Your task to perform on an android device: Go to Wikipedia Image 0: 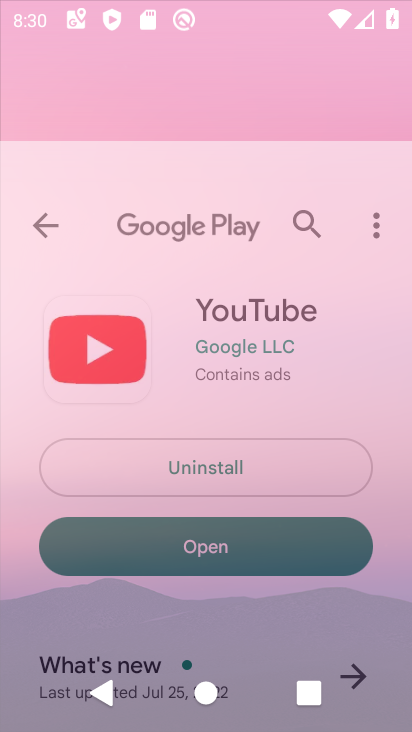
Step 0: click (312, 50)
Your task to perform on an android device: Go to Wikipedia Image 1: 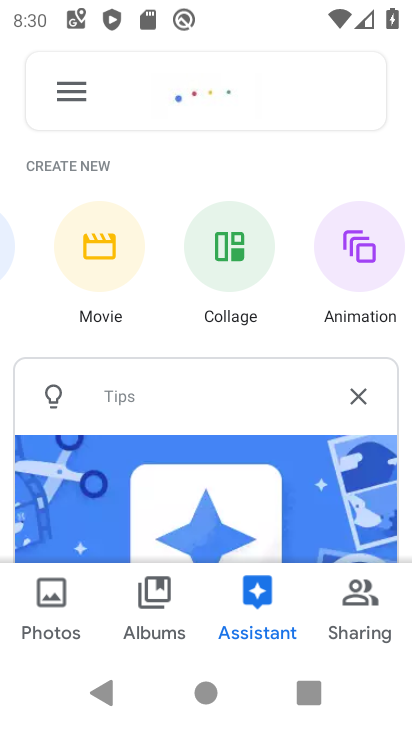
Step 1: press home button
Your task to perform on an android device: Go to Wikipedia Image 2: 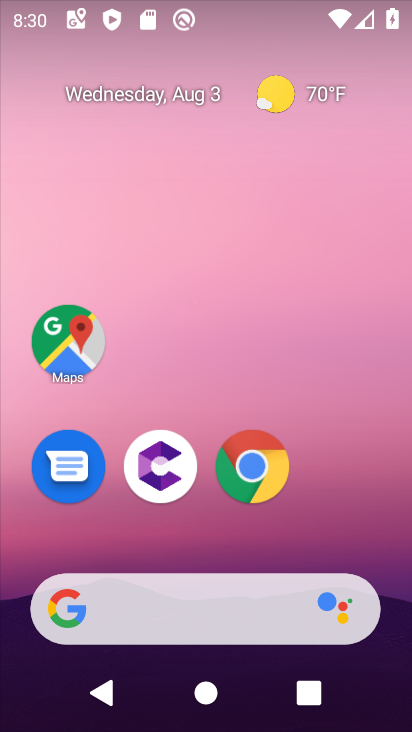
Step 2: drag from (367, 511) to (260, 128)
Your task to perform on an android device: Go to Wikipedia Image 3: 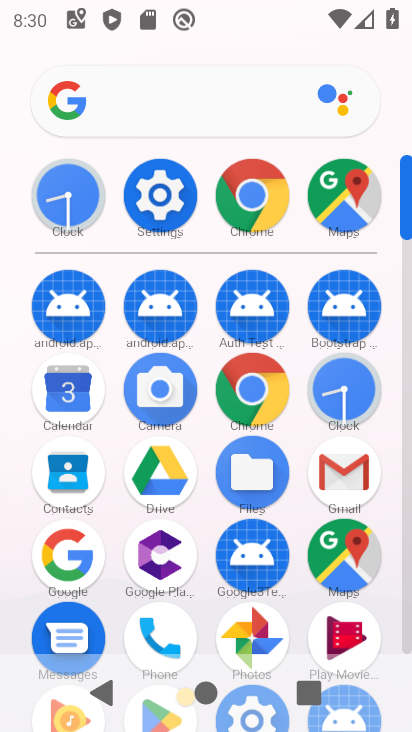
Step 3: click (249, 411)
Your task to perform on an android device: Go to Wikipedia Image 4: 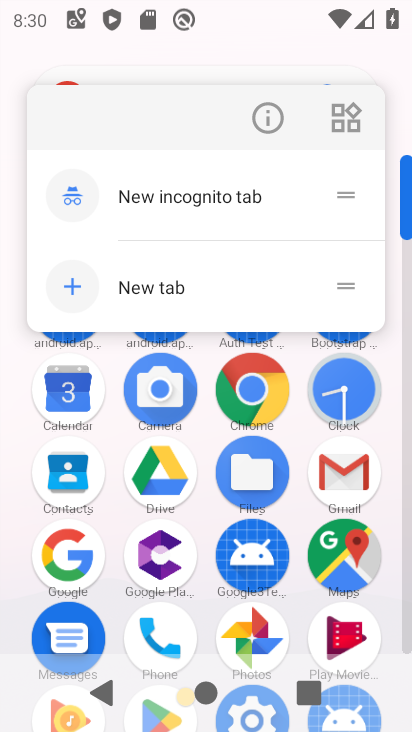
Step 4: click (249, 396)
Your task to perform on an android device: Go to Wikipedia Image 5: 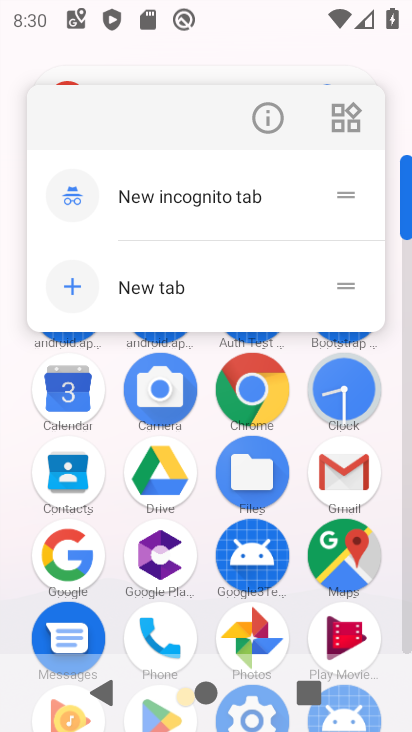
Step 5: click (259, 381)
Your task to perform on an android device: Go to Wikipedia Image 6: 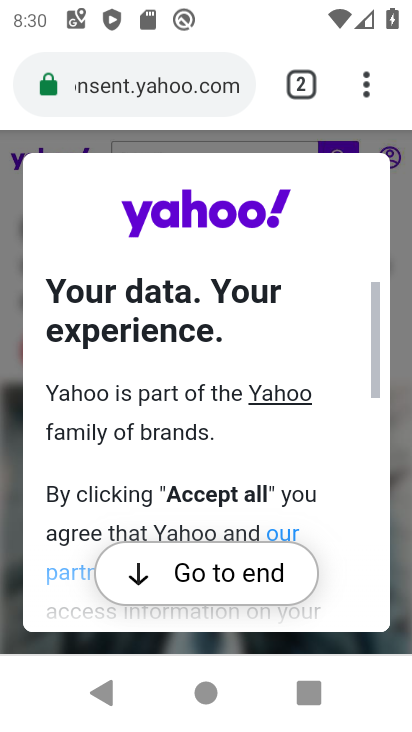
Step 6: click (147, 102)
Your task to perform on an android device: Go to Wikipedia Image 7: 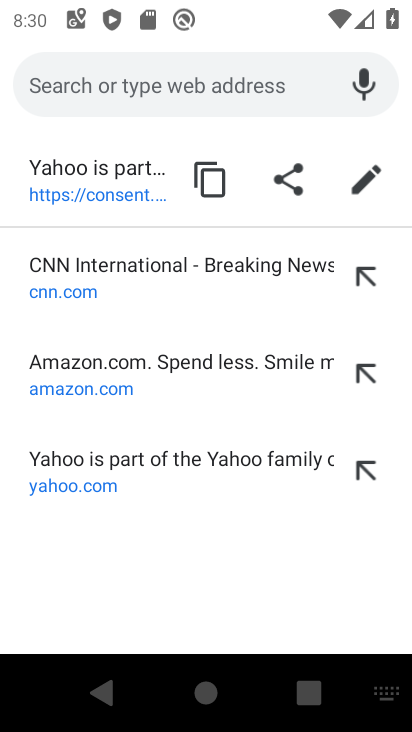
Step 7: type "wikipedia"
Your task to perform on an android device: Go to Wikipedia Image 8: 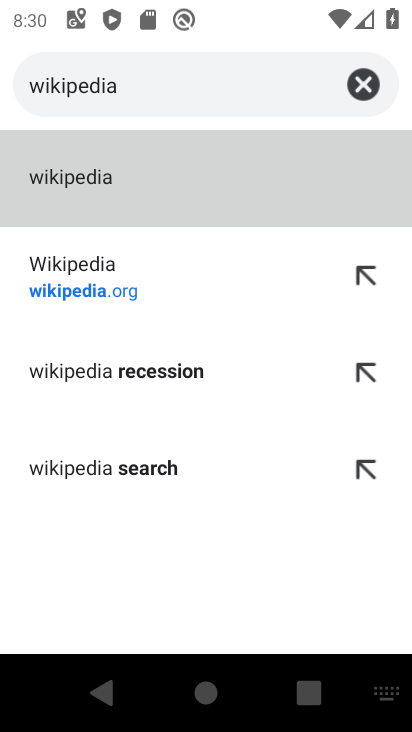
Step 8: click (80, 285)
Your task to perform on an android device: Go to Wikipedia Image 9: 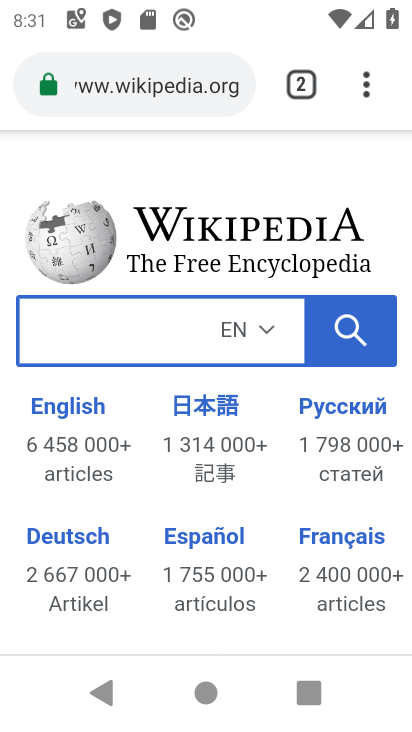
Step 9: task complete